Your task to perform on an android device: Open accessibility settings Image 0: 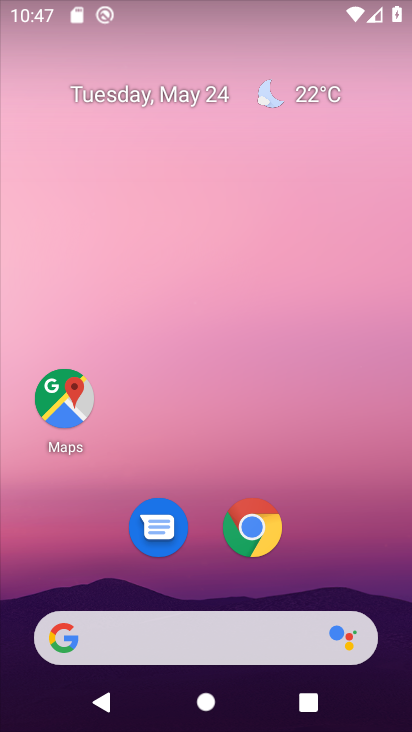
Step 0: press home button
Your task to perform on an android device: Open accessibility settings Image 1: 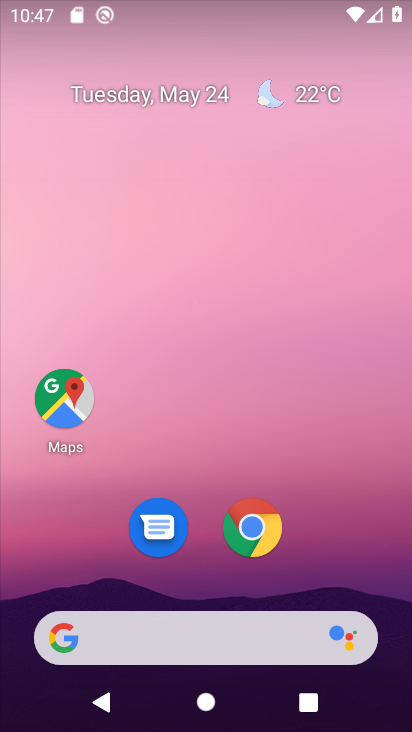
Step 1: drag from (164, 610) to (307, 167)
Your task to perform on an android device: Open accessibility settings Image 2: 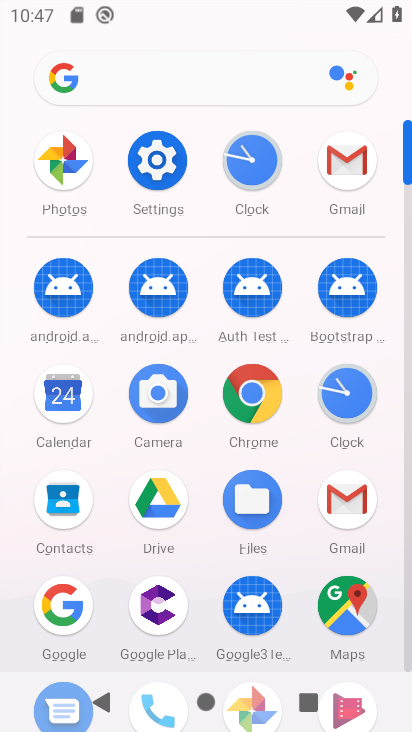
Step 2: click (160, 167)
Your task to perform on an android device: Open accessibility settings Image 3: 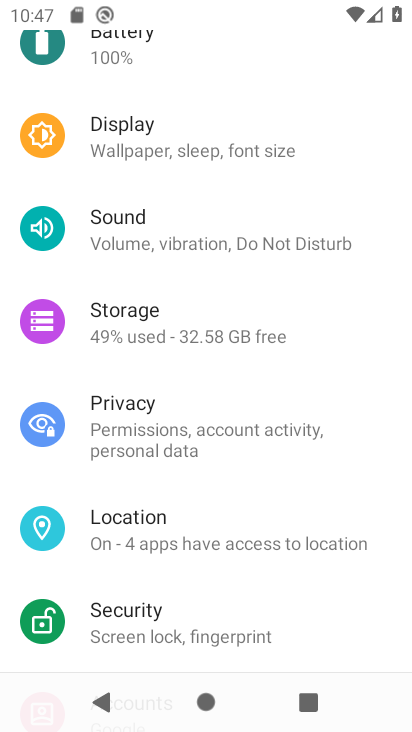
Step 3: drag from (239, 622) to (376, 107)
Your task to perform on an android device: Open accessibility settings Image 4: 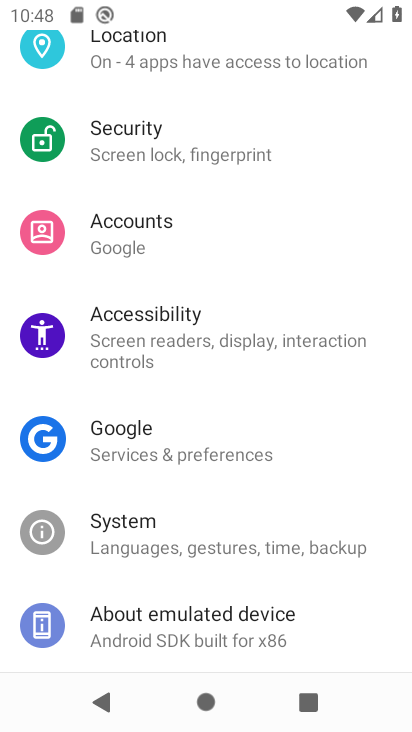
Step 4: click (160, 327)
Your task to perform on an android device: Open accessibility settings Image 5: 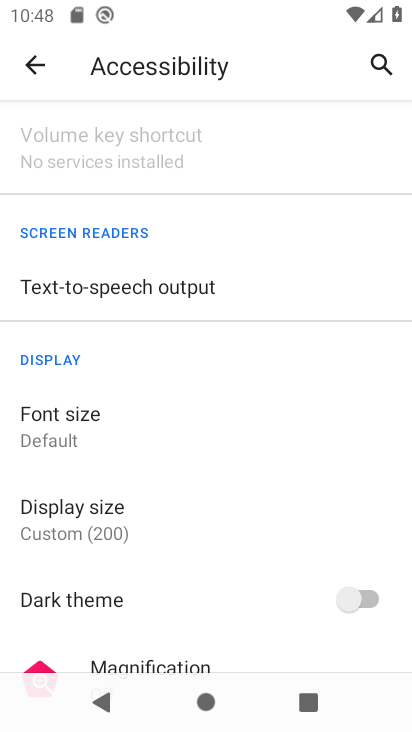
Step 5: task complete